Your task to perform on an android device: open device folders in google photos Image 0: 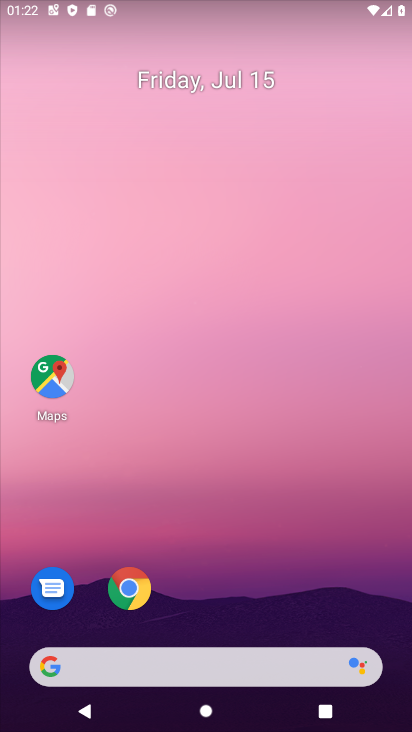
Step 0: drag from (363, 614) to (329, 190)
Your task to perform on an android device: open device folders in google photos Image 1: 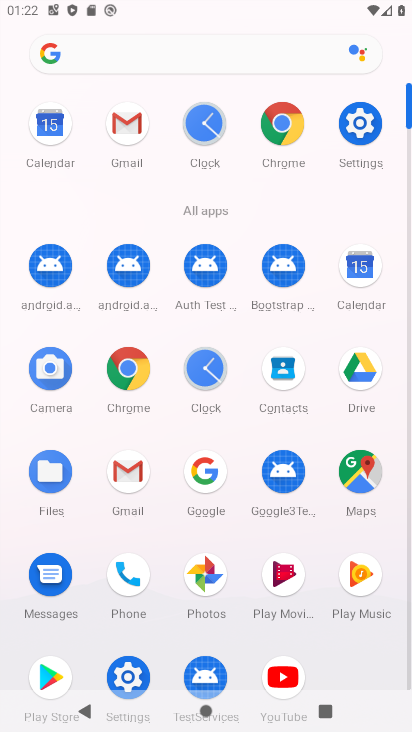
Step 1: click (203, 571)
Your task to perform on an android device: open device folders in google photos Image 2: 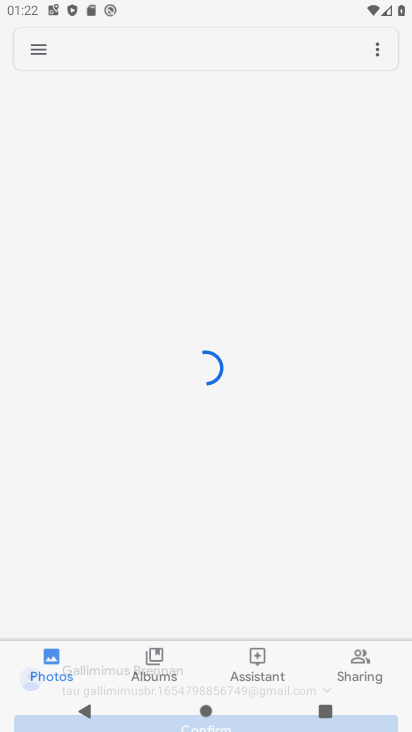
Step 2: click (40, 47)
Your task to perform on an android device: open device folders in google photos Image 3: 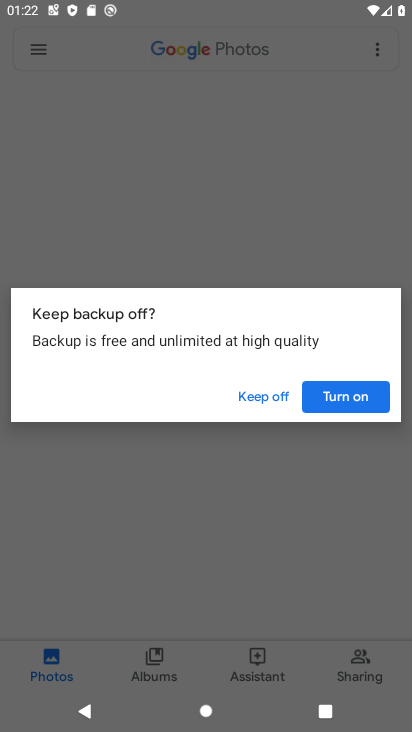
Step 3: click (363, 397)
Your task to perform on an android device: open device folders in google photos Image 4: 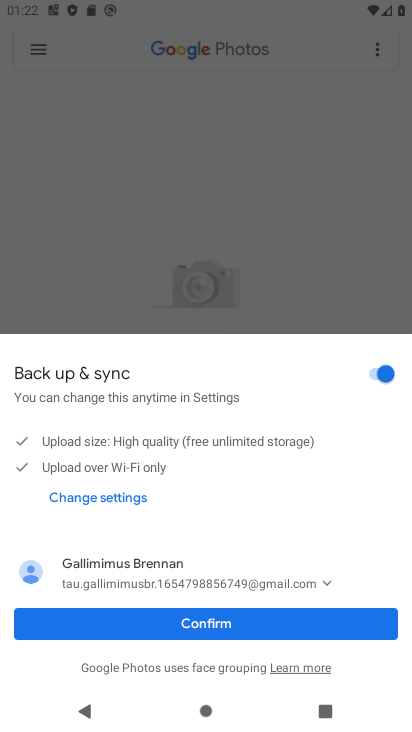
Step 4: click (200, 626)
Your task to perform on an android device: open device folders in google photos Image 5: 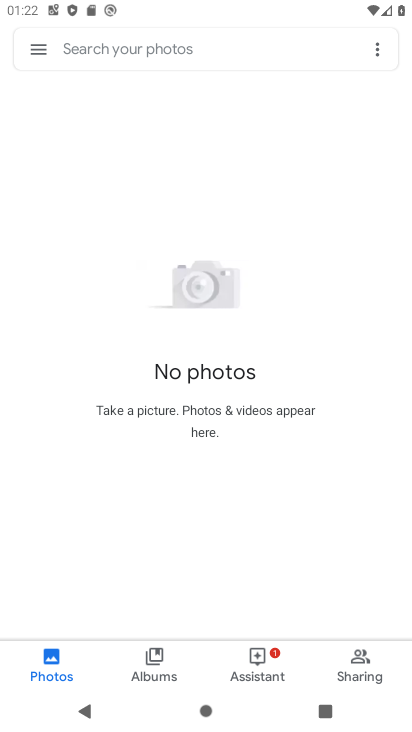
Step 5: click (40, 50)
Your task to perform on an android device: open device folders in google photos Image 6: 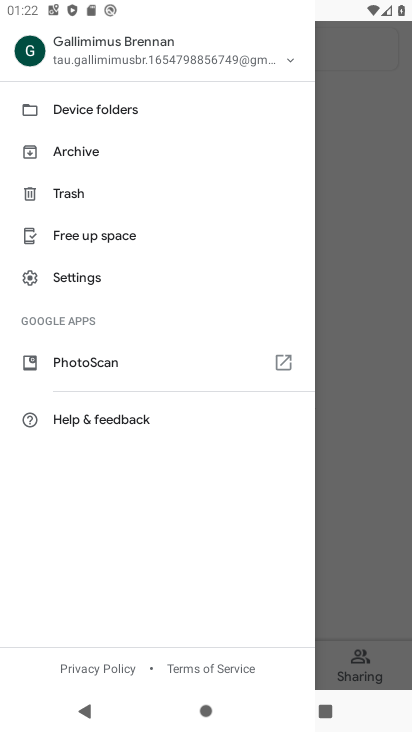
Step 6: click (107, 113)
Your task to perform on an android device: open device folders in google photos Image 7: 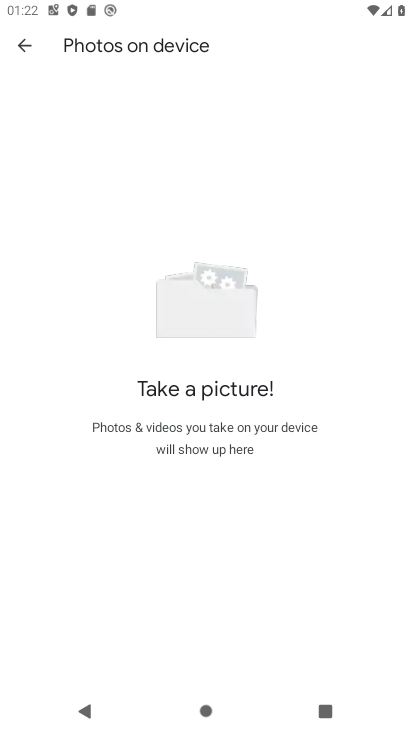
Step 7: task complete